Your task to perform on an android device: Open accessibility settings Image 0: 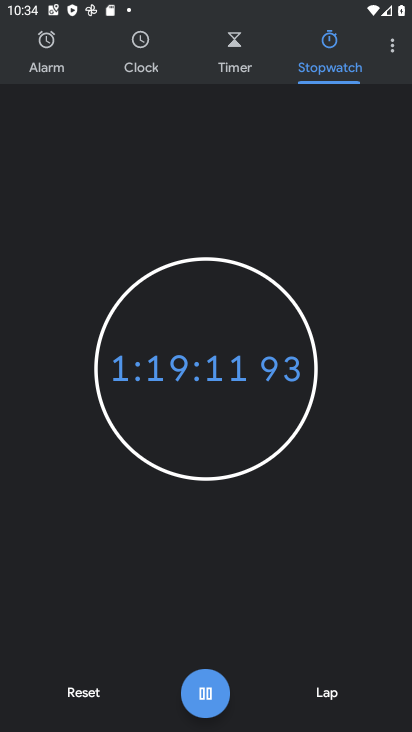
Step 0: press home button
Your task to perform on an android device: Open accessibility settings Image 1: 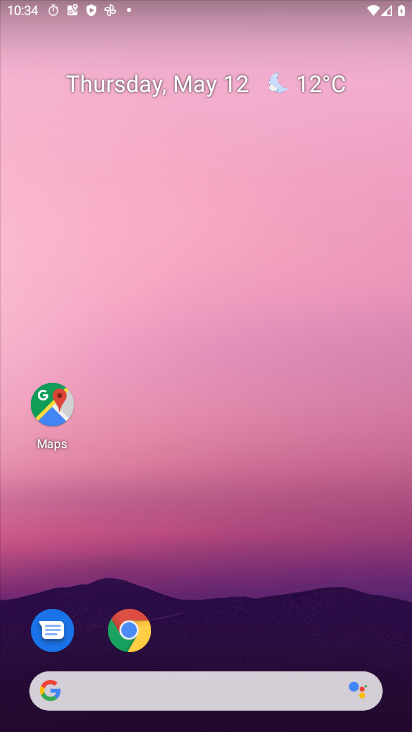
Step 1: drag from (202, 684) to (276, 135)
Your task to perform on an android device: Open accessibility settings Image 2: 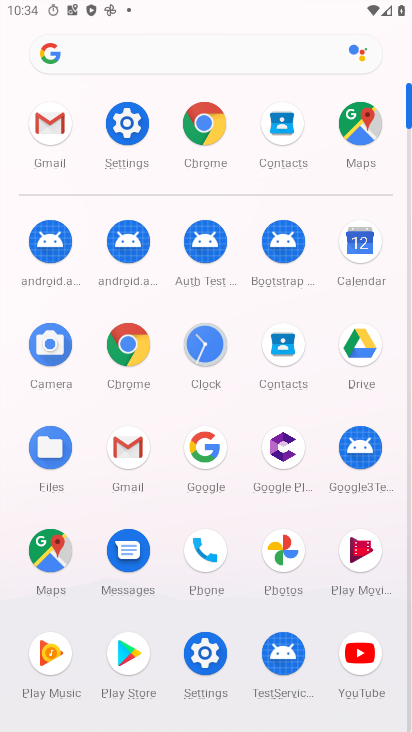
Step 2: click (199, 664)
Your task to perform on an android device: Open accessibility settings Image 3: 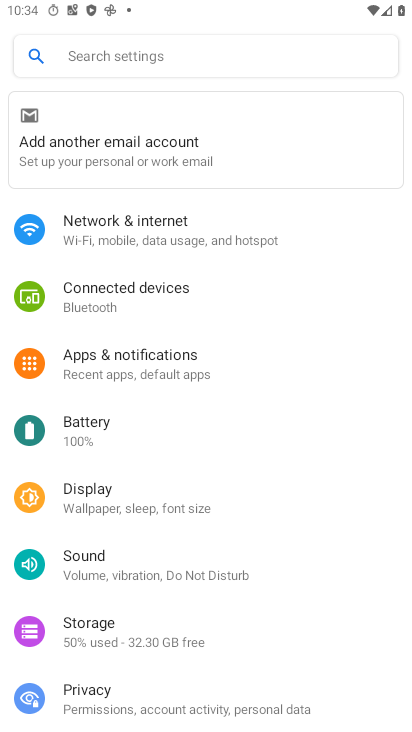
Step 3: drag from (190, 638) to (107, 319)
Your task to perform on an android device: Open accessibility settings Image 4: 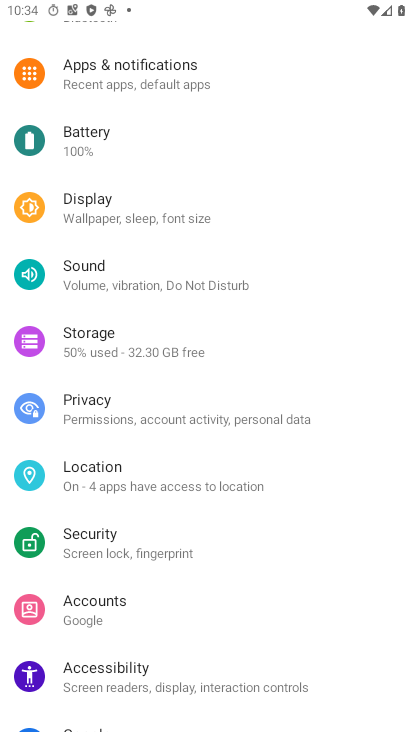
Step 4: drag from (143, 631) to (110, 364)
Your task to perform on an android device: Open accessibility settings Image 5: 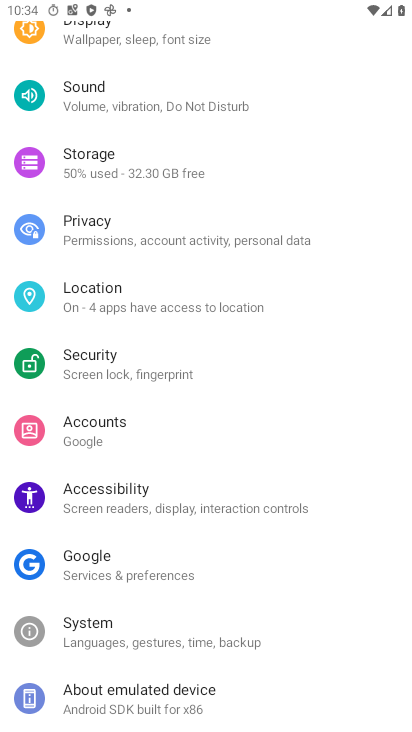
Step 5: click (129, 515)
Your task to perform on an android device: Open accessibility settings Image 6: 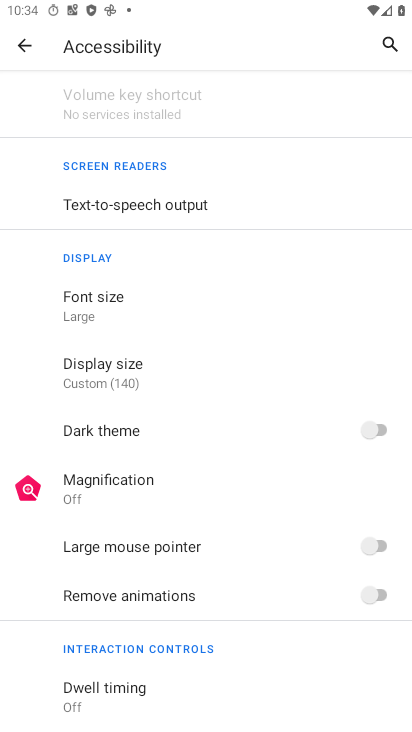
Step 6: task complete